Your task to perform on an android device: turn on data saver in the chrome app Image 0: 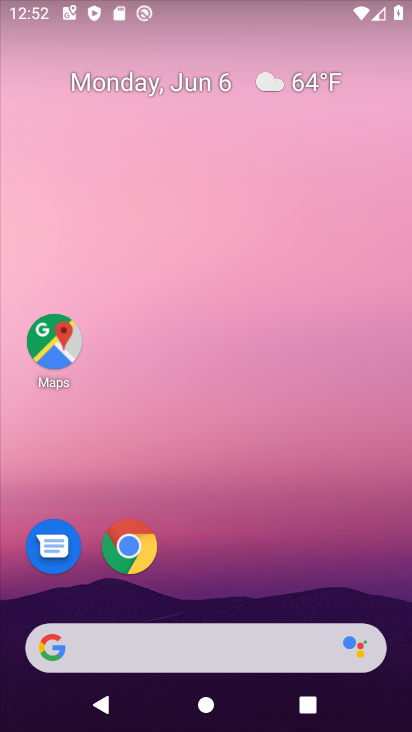
Step 0: click (130, 543)
Your task to perform on an android device: turn on data saver in the chrome app Image 1: 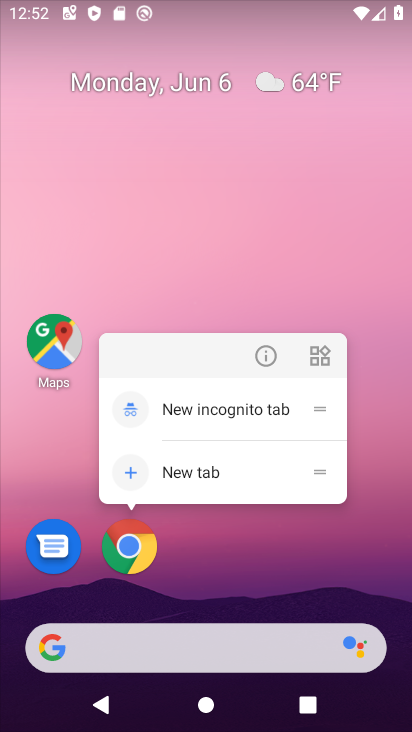
Step 1: click (128, 534)
Your task to perform on an android device: turn on data saver in the chrome app Image 2: 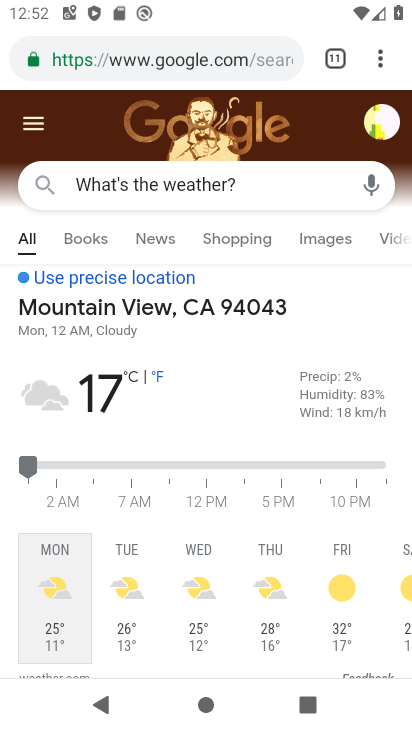
Step 2: click (378, 62)
Your task to perform on an android device: turn on data saver in the chrome app Image 3: 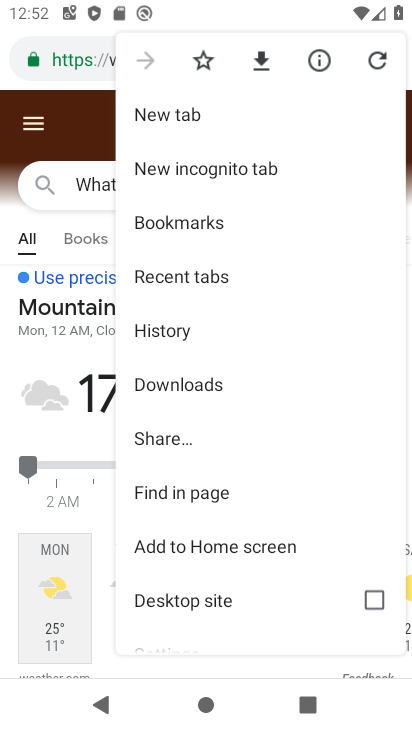
Step 3: drag from (204, 511) to (226, 329)
Your task to perform on an android device: turn on data saver in the chrome app Image 4: 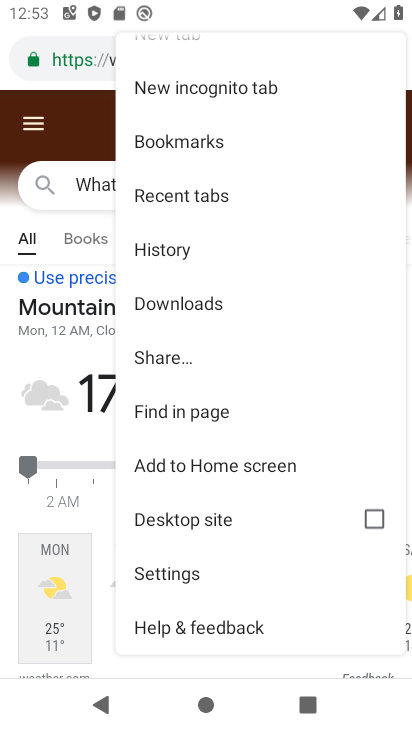
Step 4: click (218, 572)
Your task to perform on an android device: turn on data saver in the chrome app Image 5: 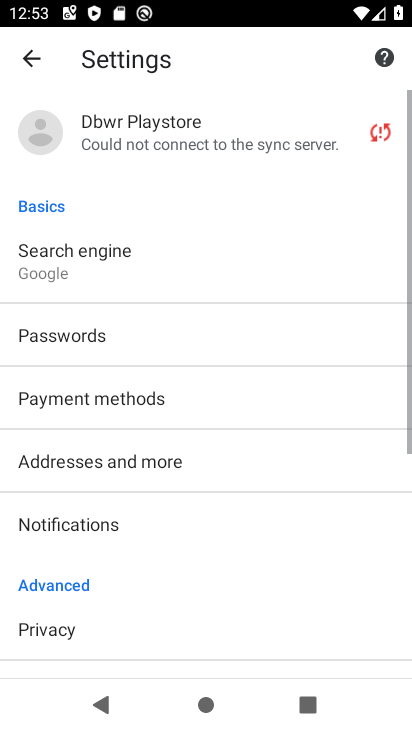
Step 5: drag from (170, 597) to (218, 250)
Your task to perform on an android device: turn on data saver in the chrome app Image 6: 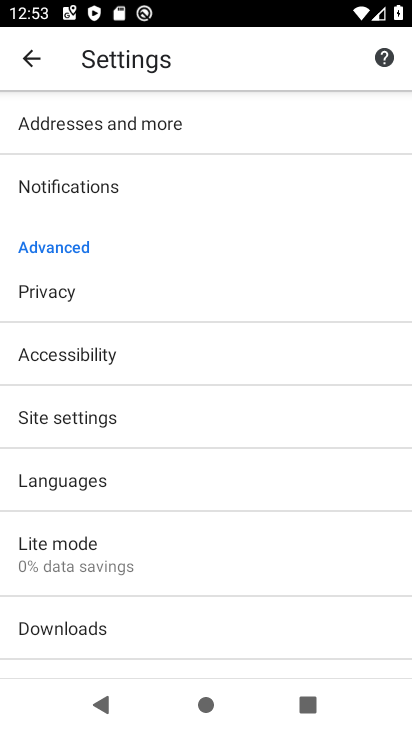
Step 6: click (133, 542)
Your task to perform on an android device: turn on data saver in the chrome app Image 7: 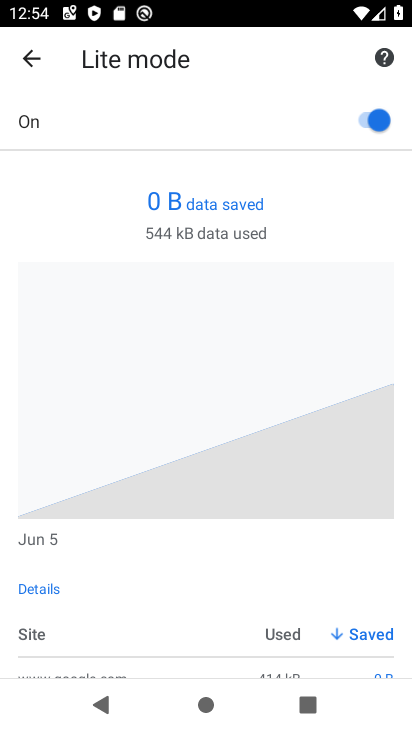
Step 7: task complete